Your task to perform on an android device: Open eBay Image 0: 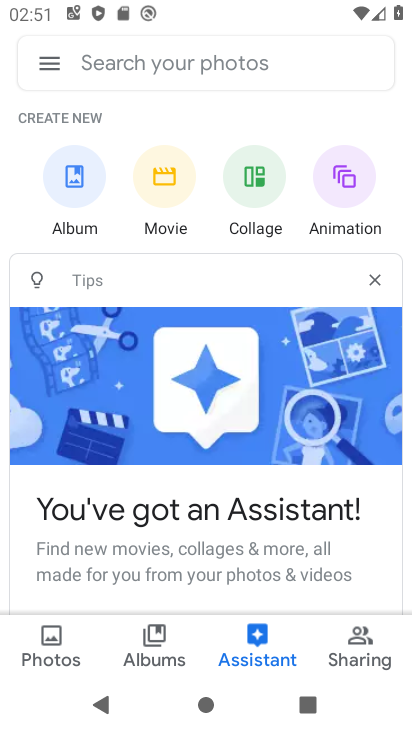
Step 0: press home button
Your task to perform on an android device: Open eBay Image 1: 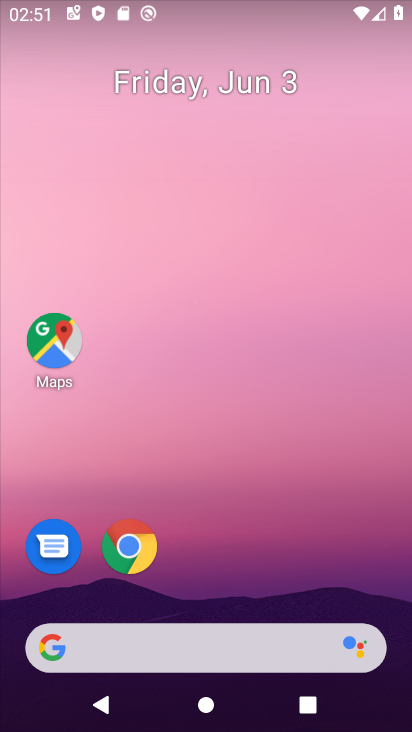
Step 1: click (128, 559)
Your task to perform on an android device: Open eBay Image 2: 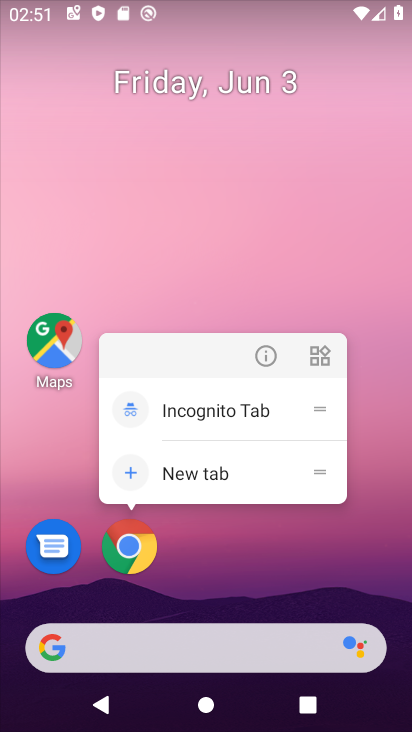
Step 2: click (130, 544)
Your task to perform on an android device: Open eBay Image 3: 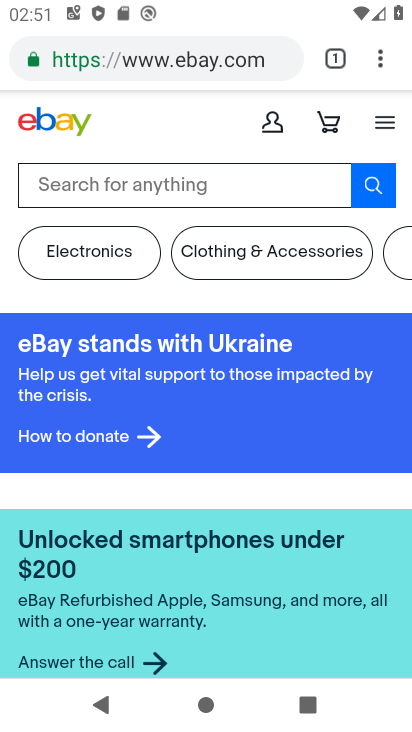
Step 3: task complete